Your task to perform on an android device: What's the weather? Image 0: 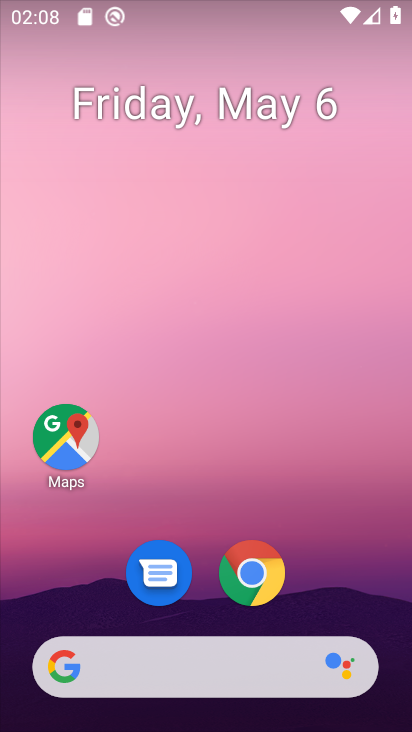
Step 0: drag from (313, 481) to (313, 91)
Your task to perform on an android device: What's the weather? Image 1: 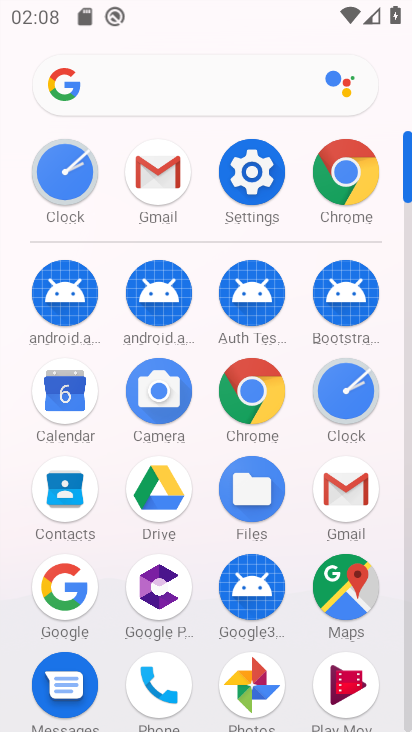
Step 1: click (347, 177)
Your task to perform on an android device: What's the weather? Image 2: 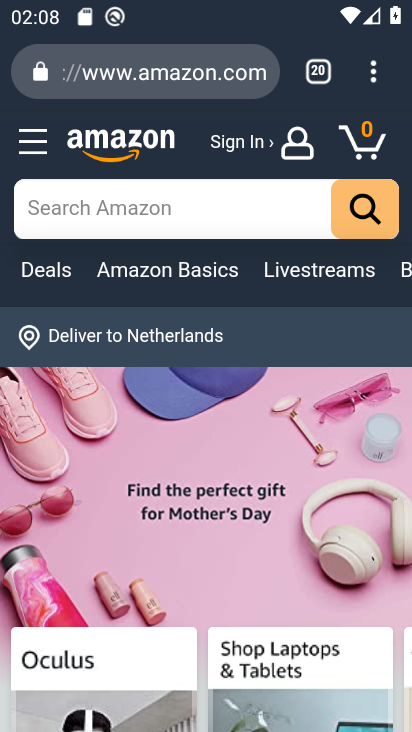
Step 2: click (360, 77)
Your task to perform on an android device: What's the weather? Image 3: 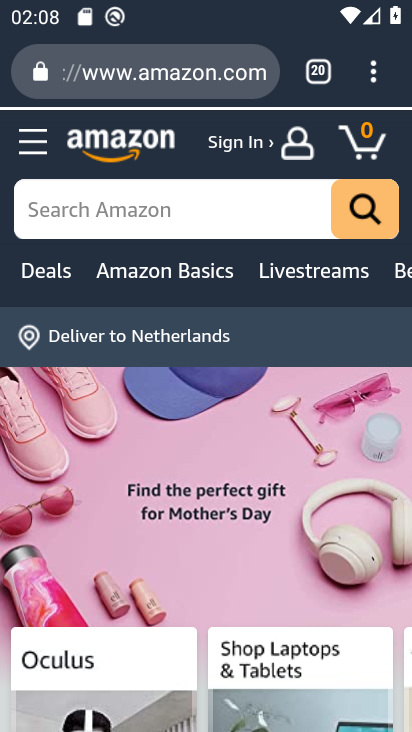
Step 3: click (340, 63)
Your task to perform on an android device: What's the weather? Image 4: 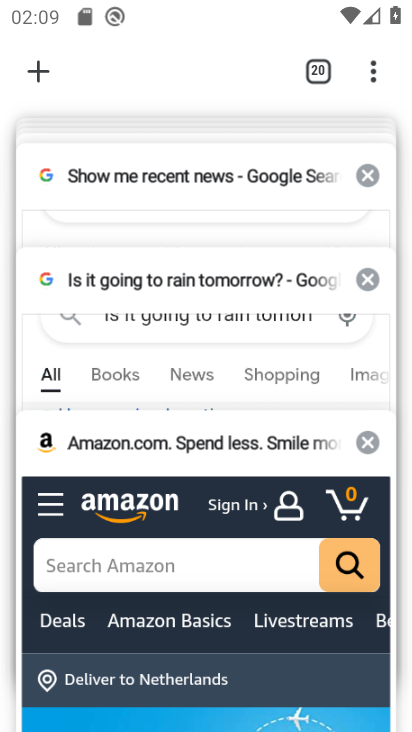
Step 4: click (45, 70)
Your task to perform on an android device: What's the weather? Image 5: 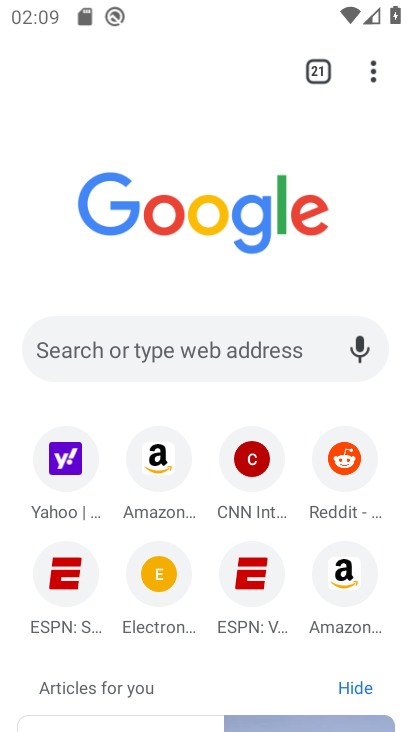
Step 5: click (237, 363)
Your task to perform on an android device: What's the weather? Image 6: 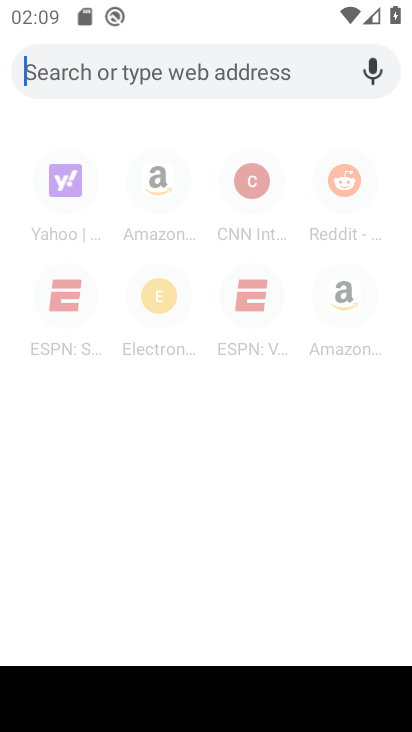
Step 6: type "What's the weather?"
Your task to perform on an android device: What's the weather? Image 7: 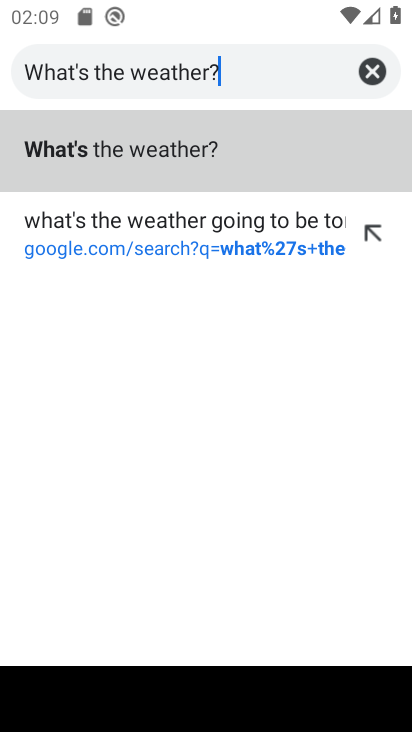
Step 7: click (165, 169)
Your task to perform on an android device: What's the weather? Image 8: 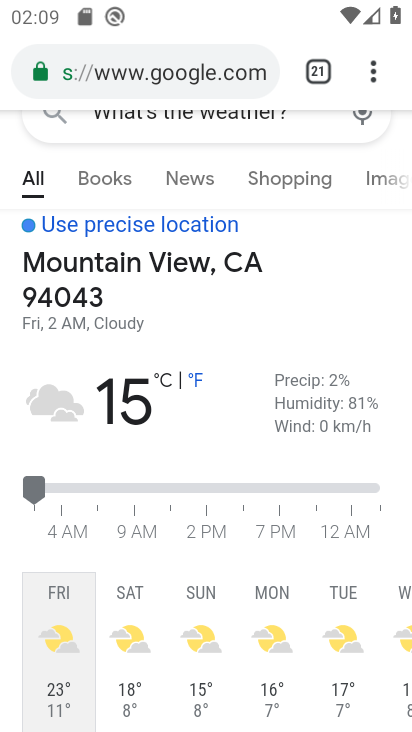
Step 8: task complete